Your task to perform on an android device: empty trash in the gmail app Image 0: 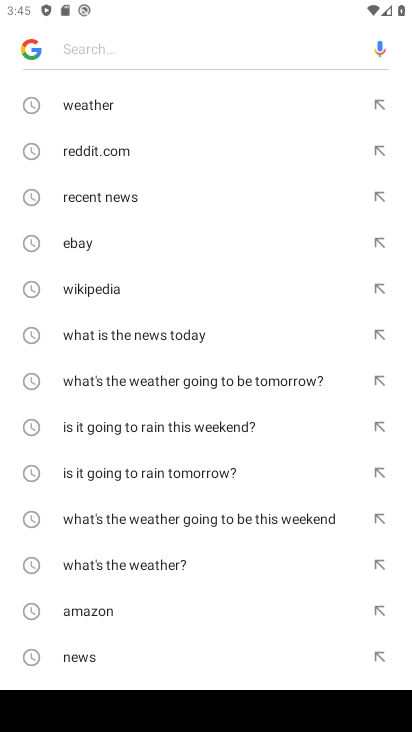
Step 0: press back button
Your task to perform on an android device: empty trash in the gmail app Image 1: 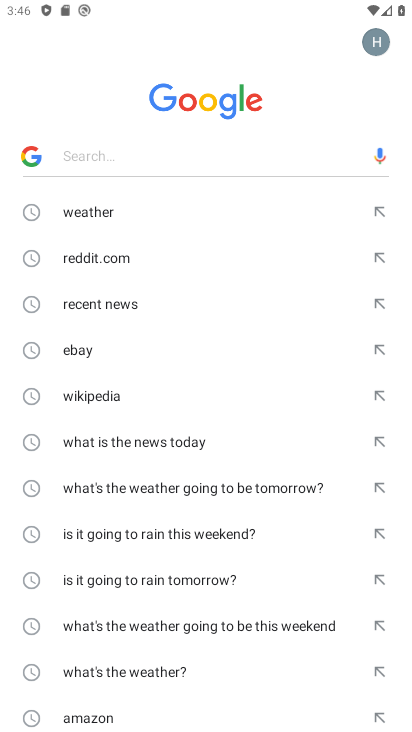
Step 1: press back button
Your task to perform on an android device: empty trash in the gmail app Image 2: 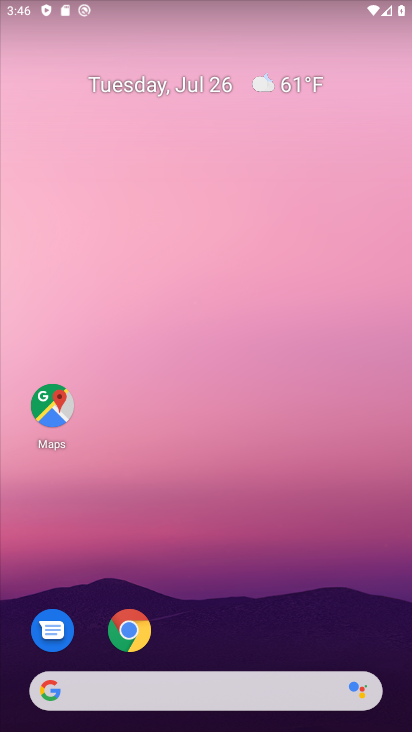
Step 2: drag from (227, 473) to (167, 72)
Your task to perform on an android device: empty trash in the gmail app Image 3: 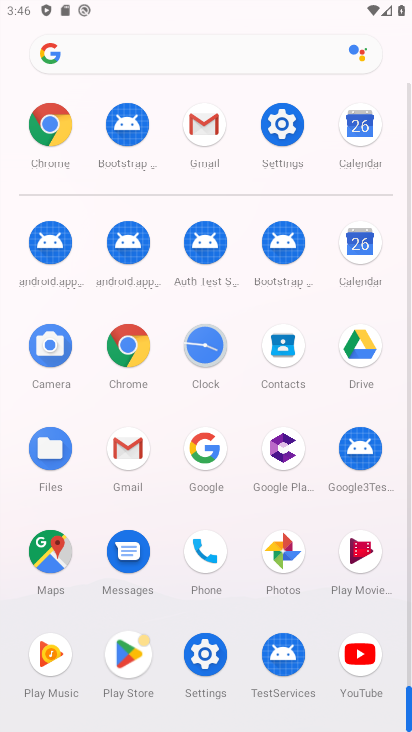
Step 3: drag from (205, 359) to (198, 6)
Your task to perform on an android device: empty trash in the gmail app Image 4: 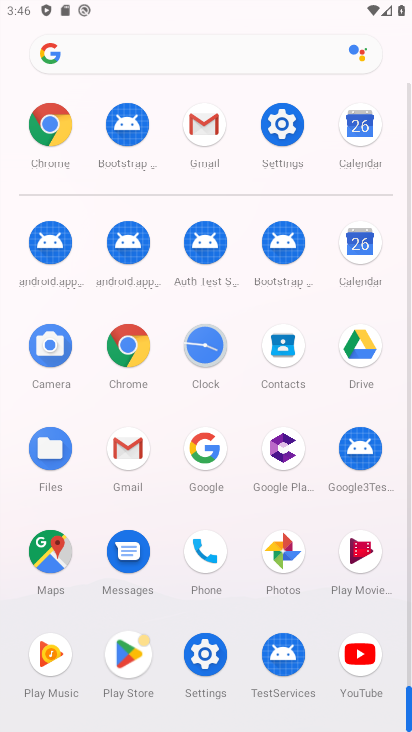
Step 4: click (127, 445)
Your task to perform on an android device: empty trash in the gmail app Image 5: 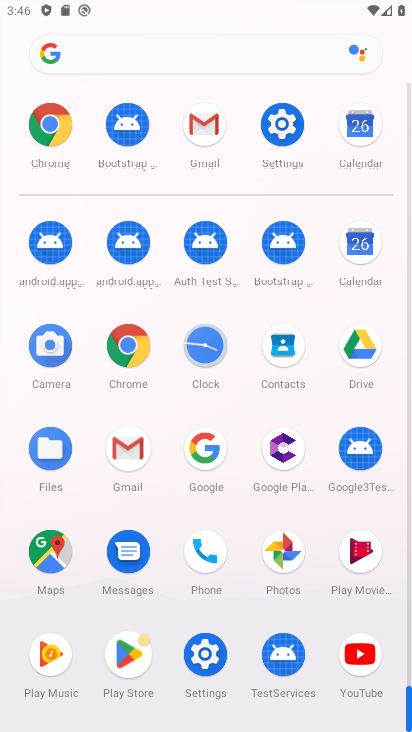
Step 5: click (130, 445)
Your task to perform on an android device: empty trash in the gmail app Image 6: 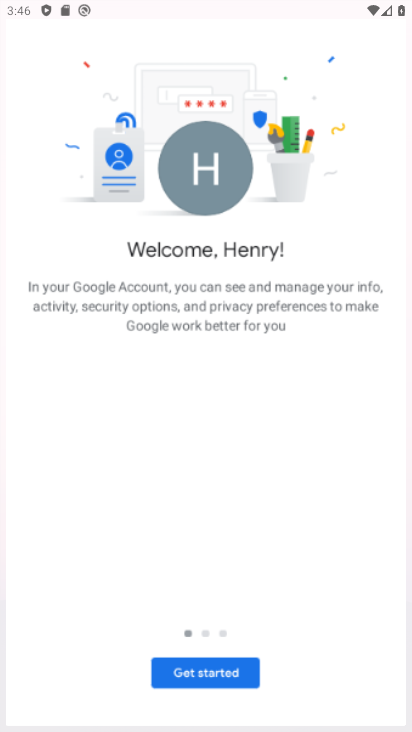
Step 6: click (131, 446)
Your task to perform on an android device: empty trash in the gmail app Image 7: 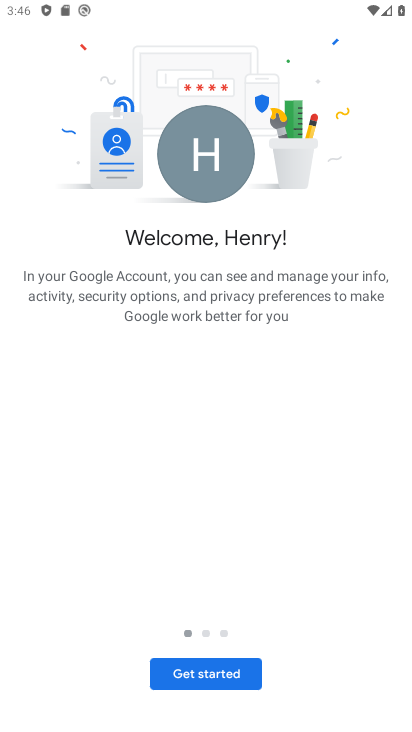
Step 7: click (224, 666)
Your task to perform on an android device: empty trash in the gmail app Image 8: 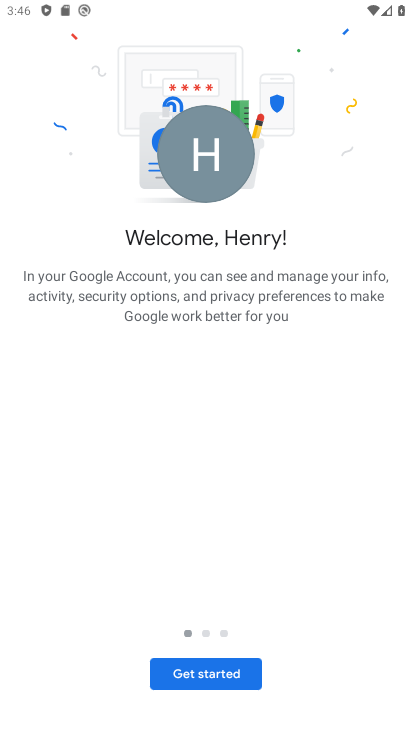
Step 8: click (227, 668)
Your task to perform on an android device: empty trash in the gmail app Image 9: 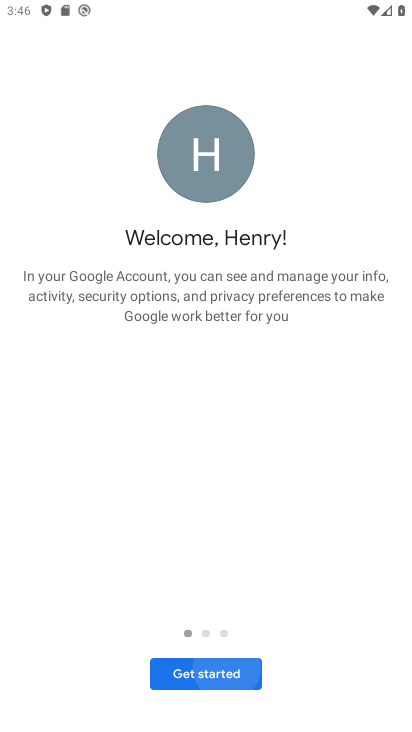
Step 9: click (227, 668)
Your task to perform on an android device: empty trash in the gmail app Image 10: 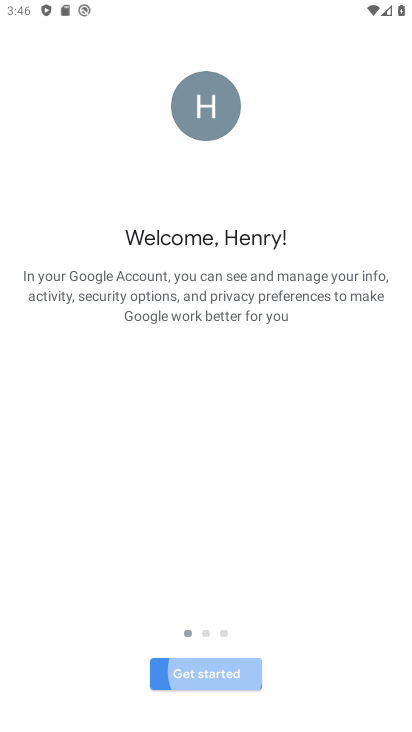
Step 10: click (228, 669)
Your task to perform on an android device: empty trash in the gmail app Image 11: 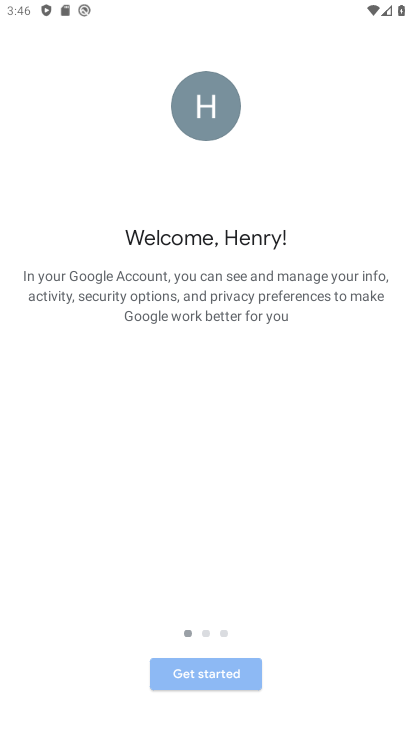
Step 11: click (229, 669)
Your task to perform on an android device: empty trash in the gmail app Image 12: 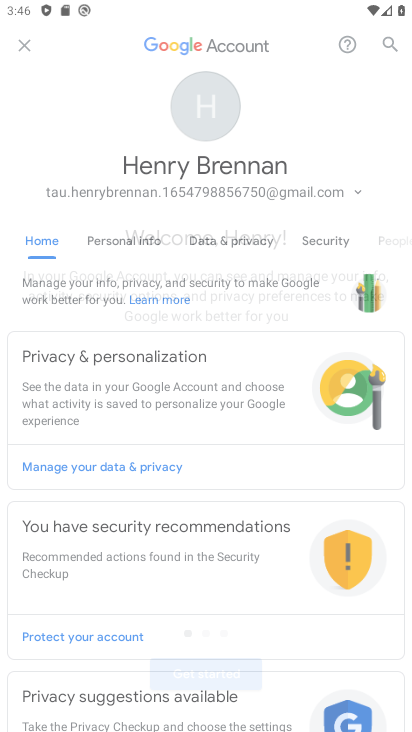
Step 12: click (232, 670)
Your task to perform on an android device: empty trash in the gmail app Image 13: 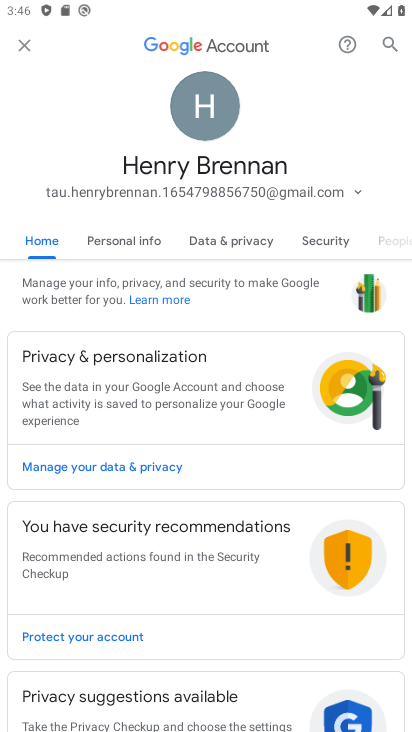
Step 13: click (238, 669)
Your task to perform on an android device: empty trash in the gmail app Image 14: 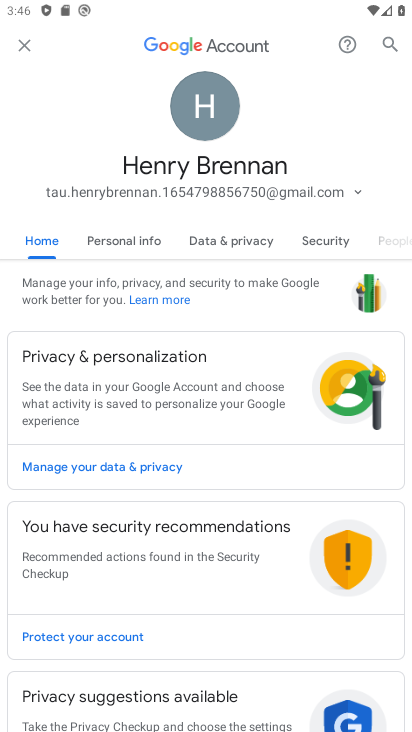
Step 14: click (26, 48)
Your task to perform on an android device: empty trash in the gmail app Image 15: 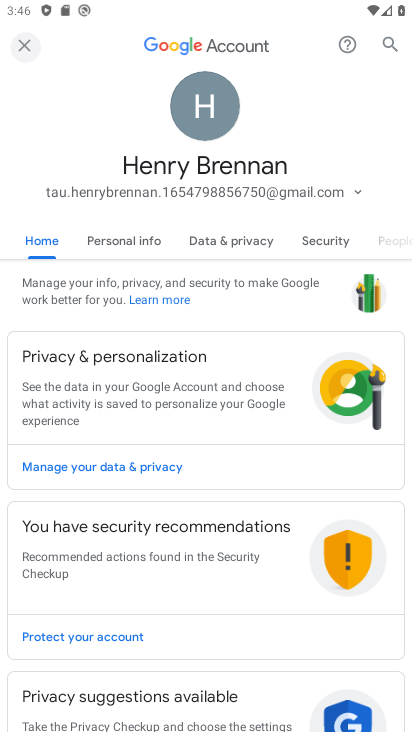
Step 15: click (25, 40)
Your task to perform on an android device: empty trash in the gmail app Image 16: 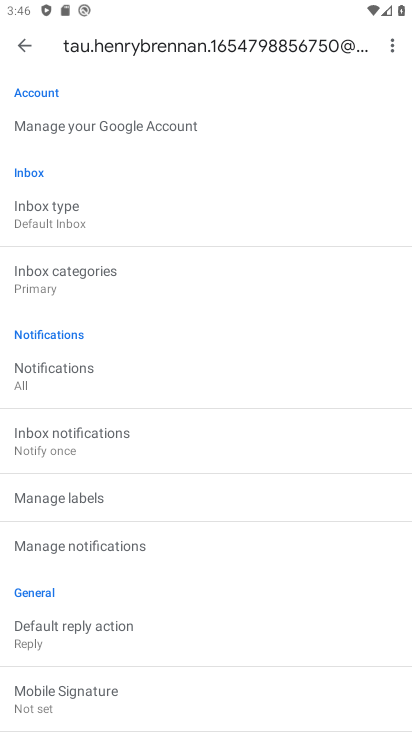
Step 16: click (18, 40)
Your task to perform on an android device: empty trash in the gmail app Image 17: 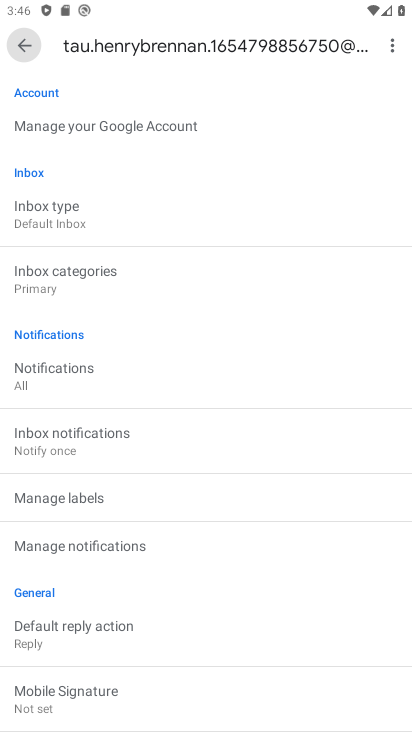
Step 17: click (18, 40)
Your task to perform on an android device: empty trash in the gmail app Image 18: 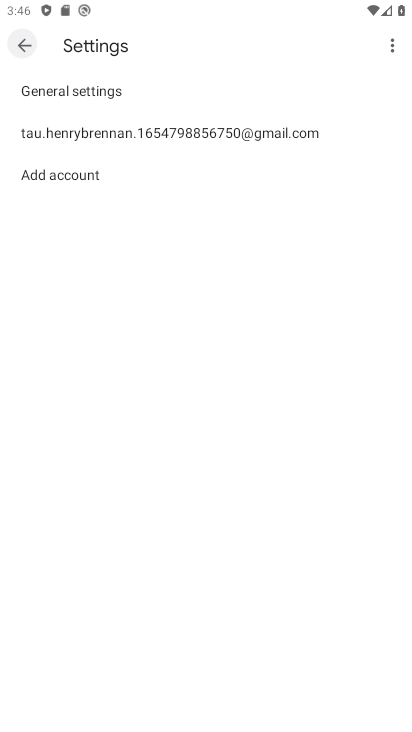
Step 18: click (18, 40)
Your task to perform on an android device: empty trash in the gmail app Image 19: 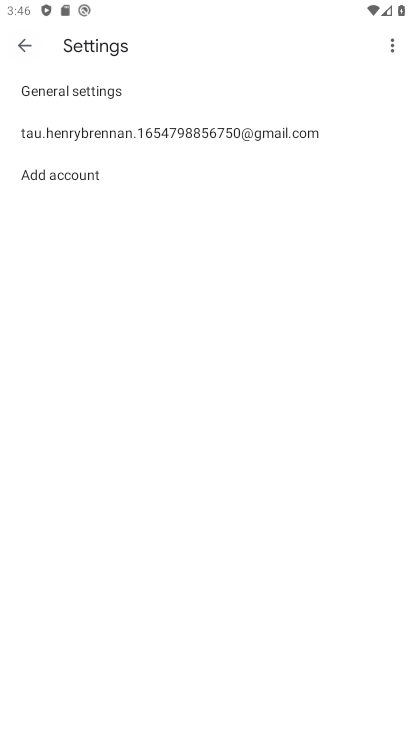
Step 19: click (21, 39)
Your task to perform on an android device: empty trash in the gmail app Image 20: 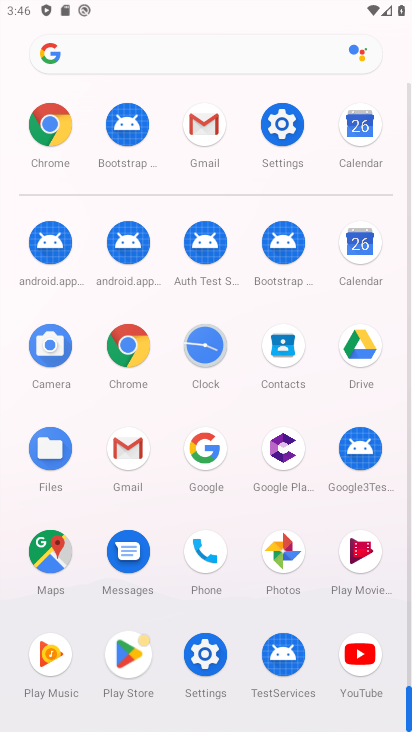
Step 20: click (122, 444)
Your task to perform on an android device: empty trash in the gmail app Image 21: 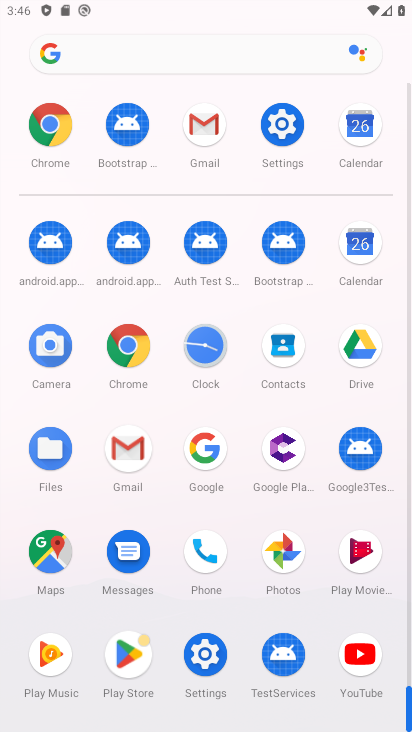
Step 21: click (126, 442)
Your task to perform on an android device: empty trash in the gmail app Image 22: 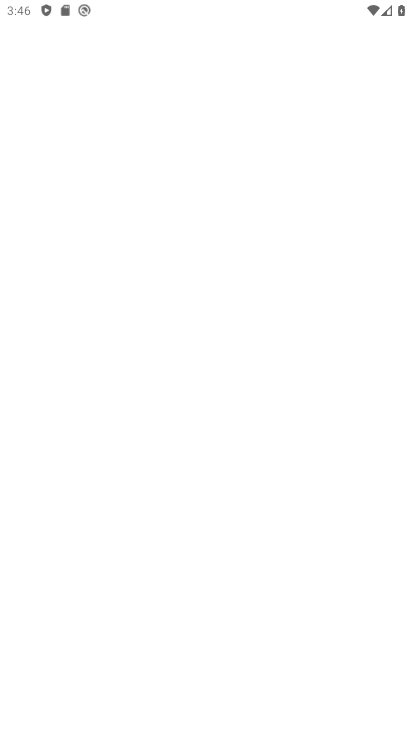
Step 22: click (123, 447)
Your task to perform on an android device: empty trash in the gmail app Image 23: 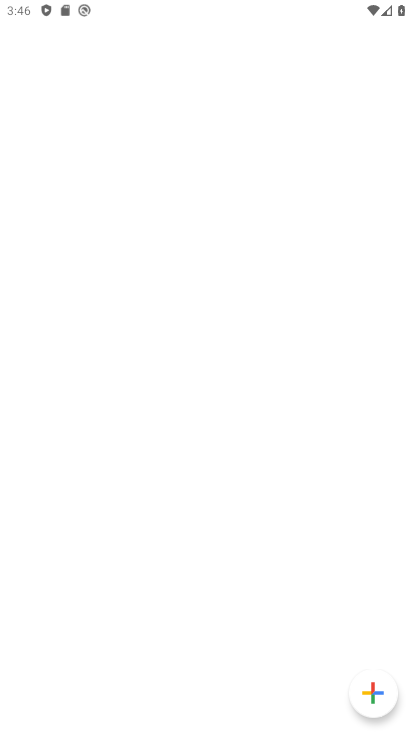
Step 23: click (123, 447)
Your task to perform on an android device: empty trash in the gmail app Image 24: 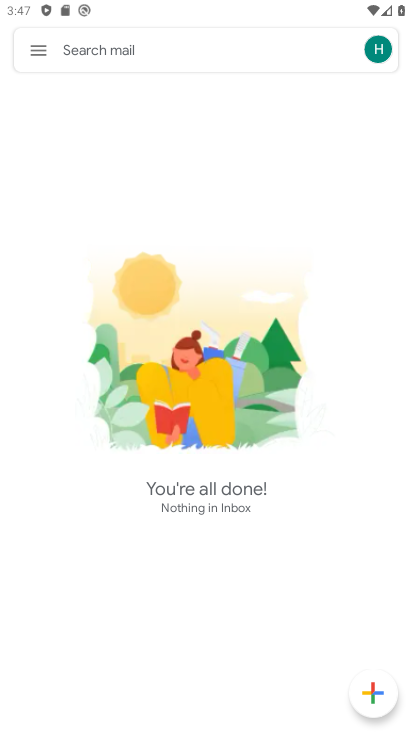
Step 24: click (38, 44)
Your task to perform on an android device: empty trash in the gmail app Image 25: 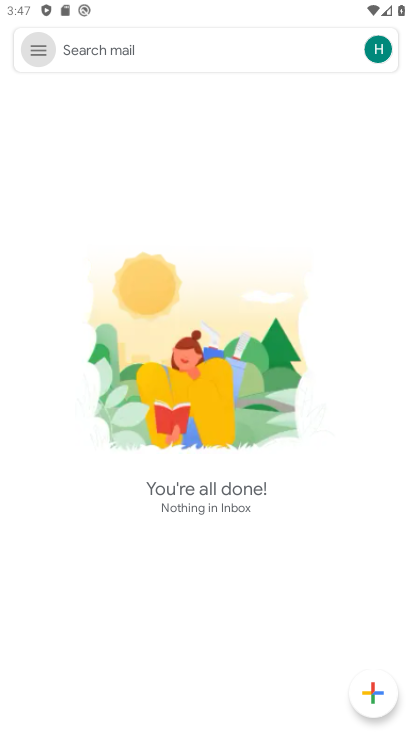
Step 25: click (38, 44)
Your task to perform on an android device: empty trash in the gmail app Image 26: 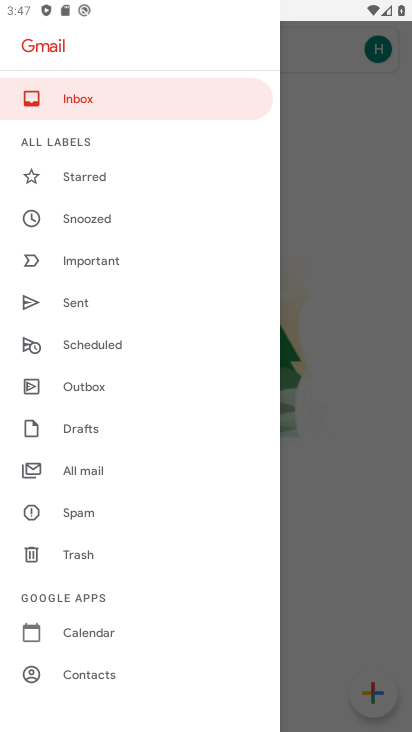
Step 26: click (85, 552)
Your task to perform on an android device: empty trash in the gmail app Image 27: 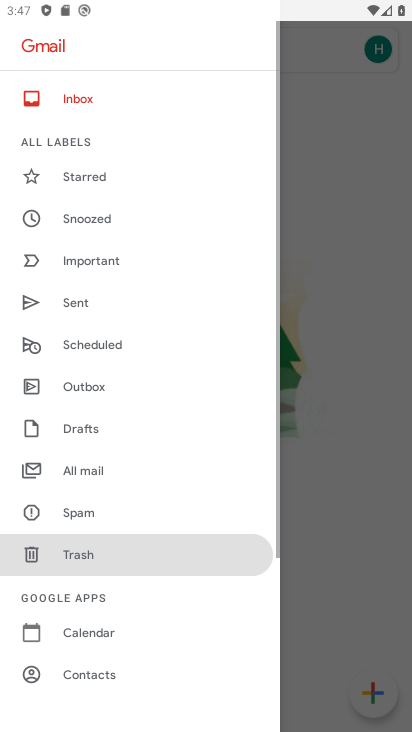
Step 27: click (85, 552)
Your task to perform on an android device: empty trash in the gmail app Image 28: 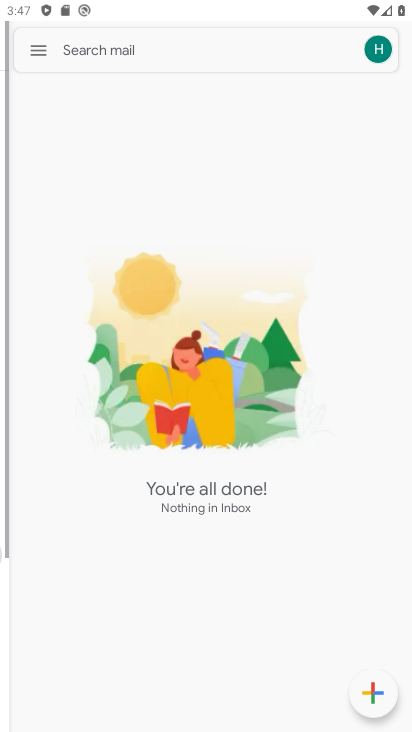
Step 28: click (85, 552)
Your task to perform on an android device: empty trash in the gmail app Image 29: 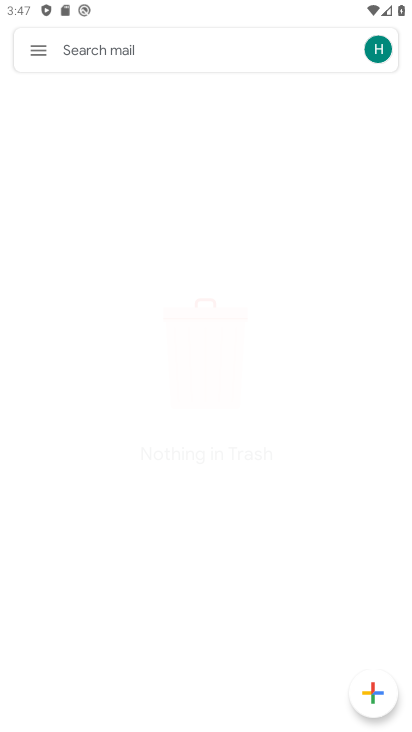
Step 29: click (86, 552)
Your task to perform on an android device: empty trash in the gmail app Image 30: 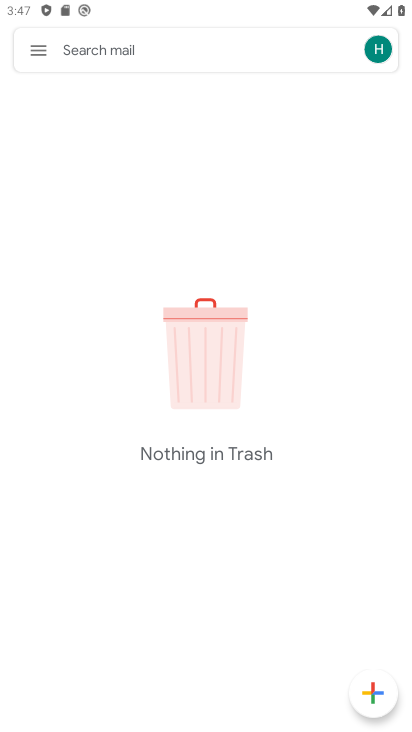
Step 30: task complete